Your task to perform on an android device: Show me the alarms in the clock app Image 0: 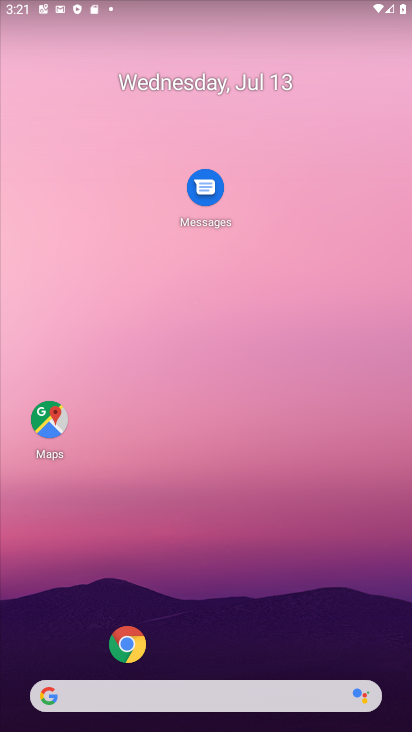
Step 0: drag from (26, 680) to (134, 128)
Your task to perform on an android device: Show me the alarms in the clock app Image 1: 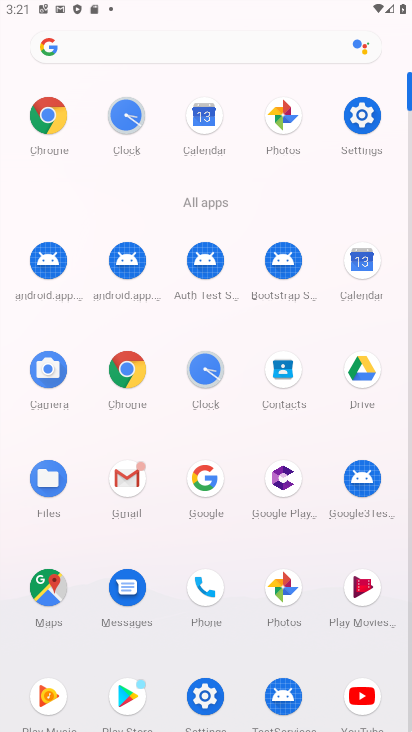
Step 1: click (209, 371)
Your task to perform on an android device: Show me the alarms in the clock app Image 2: 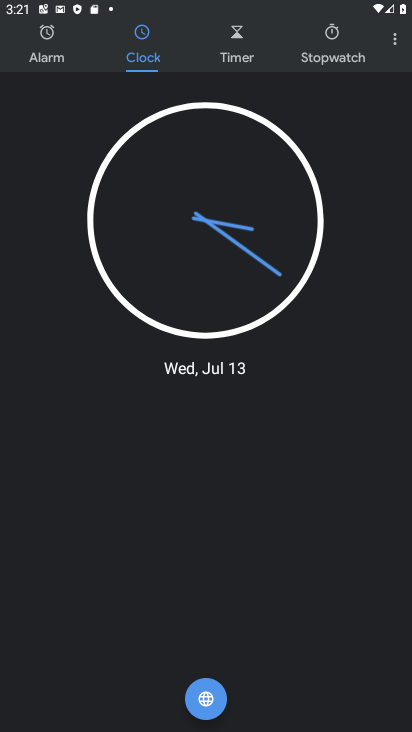
Step 2: click (61, 46)
Your task to perform on an android device: Show me the alarms in the clock app Image 3: 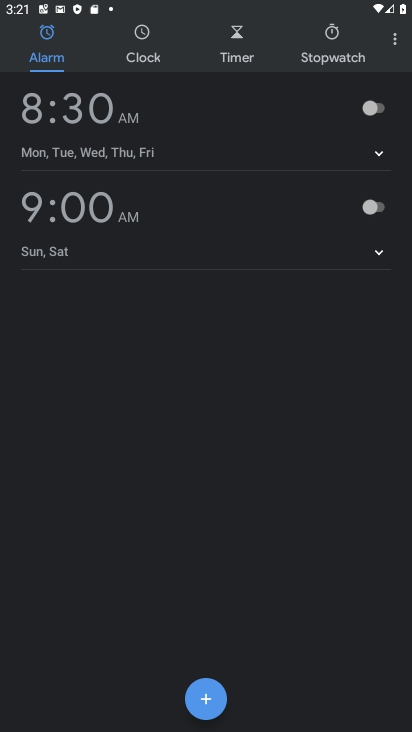
Step 3: task complete